Your task to perform on an android device: Open Maps and search for coffee Image 0: 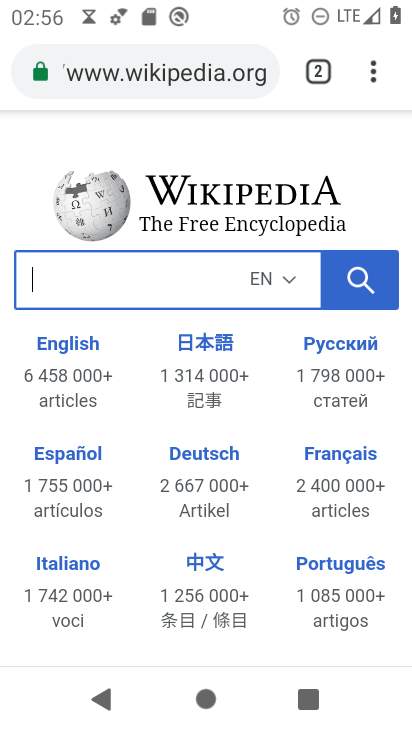
Step 0: press home button
Your task to perform on an android device: Open Maps and search for coffee Image 1: 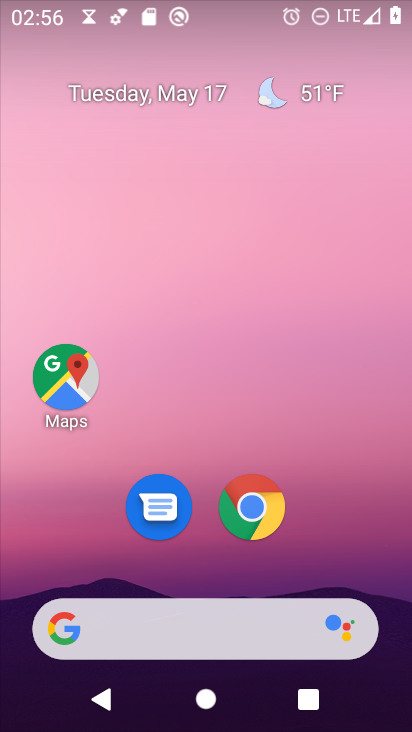
Step 1: click (57, 365)
Your task to perform on an android device: Open Maps and search for coffee Image 2: 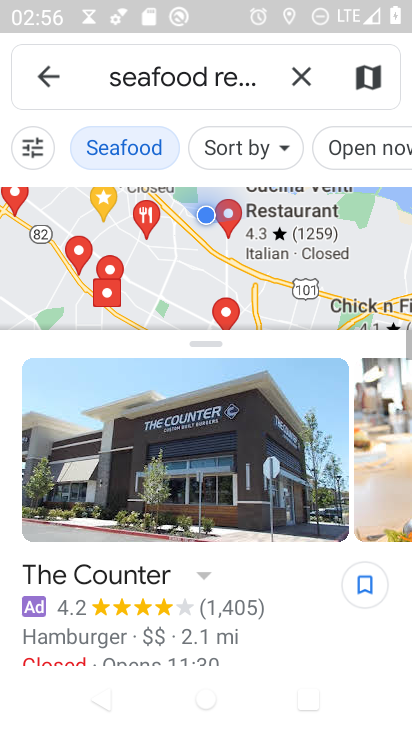
Step 2: click (301, 77)
Your task to perform on an android device: Open Maps and search for coffee Image 3: 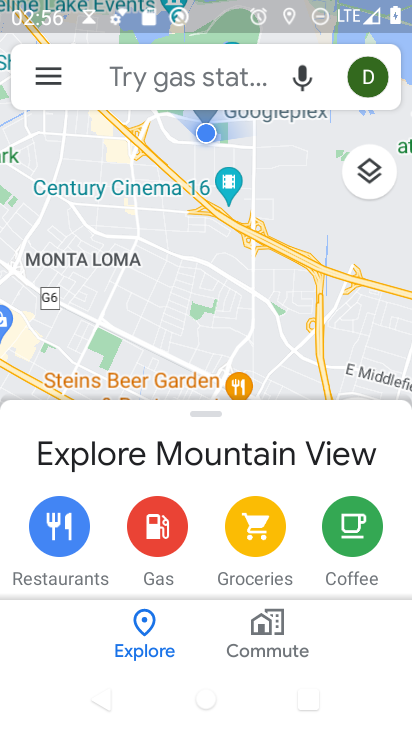
Step 3: click (146, 73)
Your task to perform on an android device: Open Maps and search for coffee Image 4: 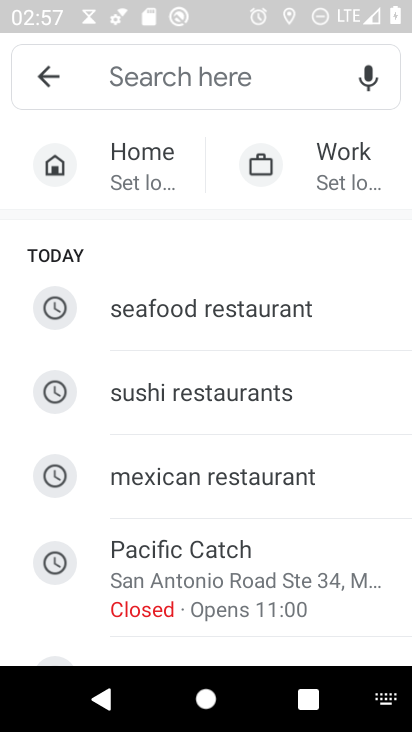
Step 4: type "coffee"
Your task to perform on an android device: Open Maps and search for coffee Image 5: 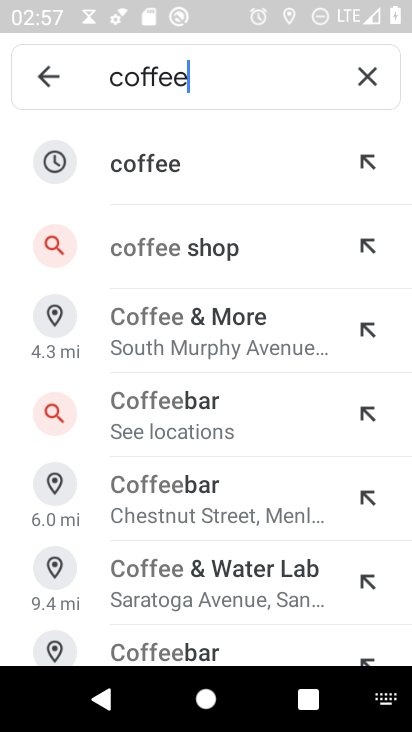
Step 5: click (158, 150)
Your task to perform on an android device: Open Maps and search for coffee Image 6: 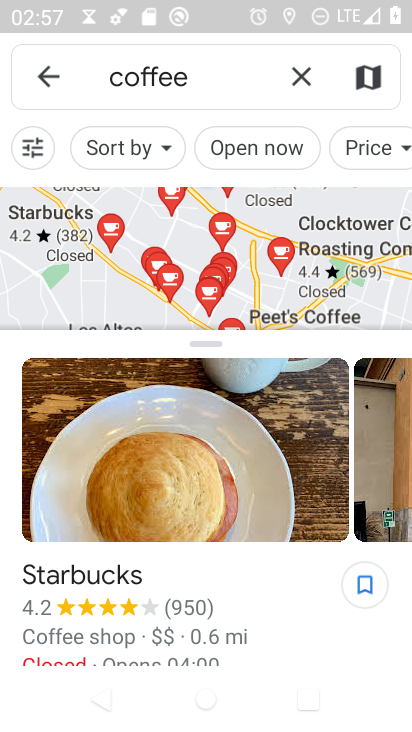
Step 6: task complete